Your task to perform on an android device: Go to network settings Image 0: 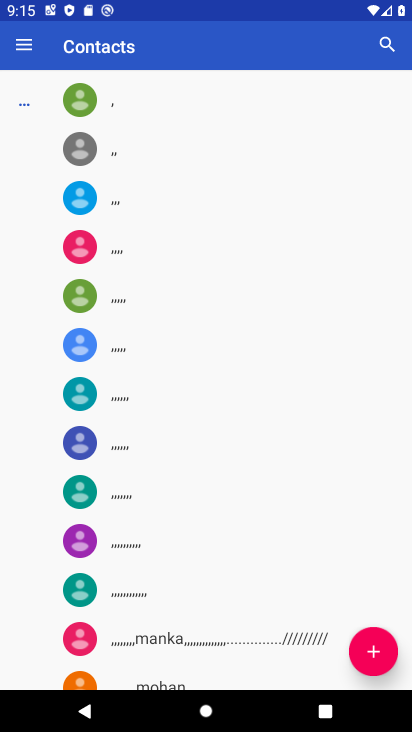
Step 0: press home button
Your task to perform on an android device: Go to network settings Image 1: 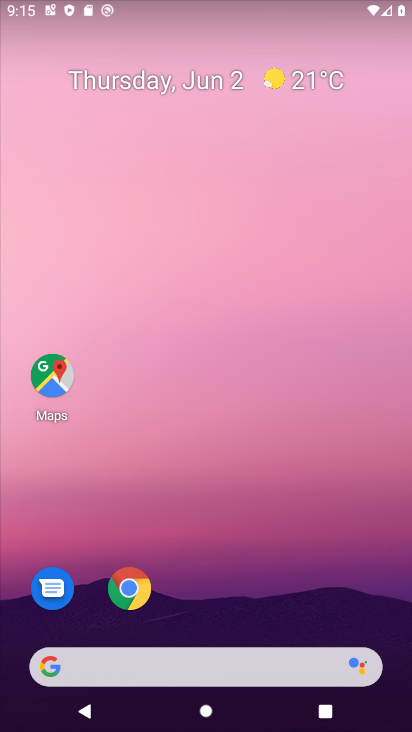
Step 1: drag from (194, 667) to (325, 0)
Your task to perform on an android device: Go to network settings Image 2: 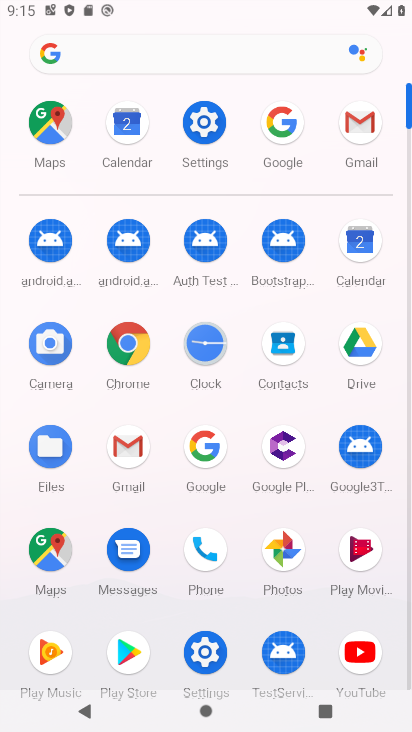
Step 2: click (208, 143)
Your task to perform on an android device: Go to network settings Image 3: 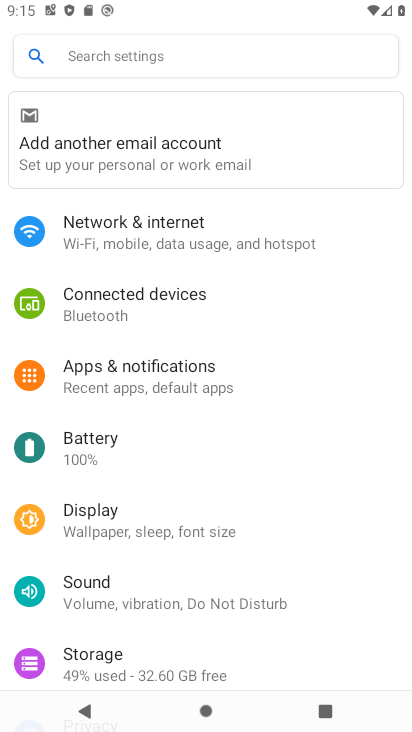
Step 3: click (167, 231)
Your task to perform on an android device: Go to network settings Image 4: 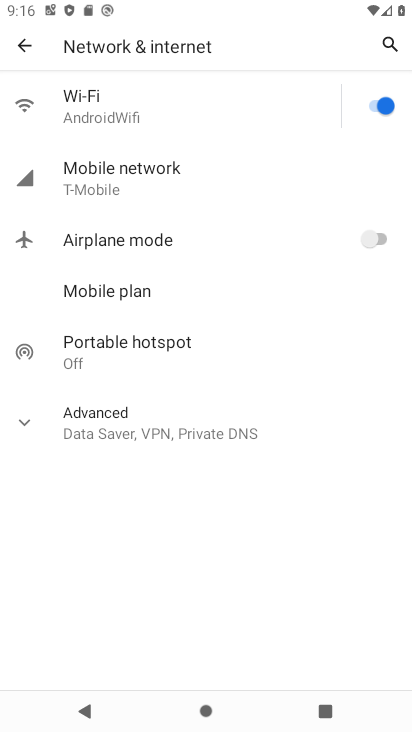
Step 4: task complete